Your task to perform on an android device: Open calendar and show me the first week of next month Image 0: 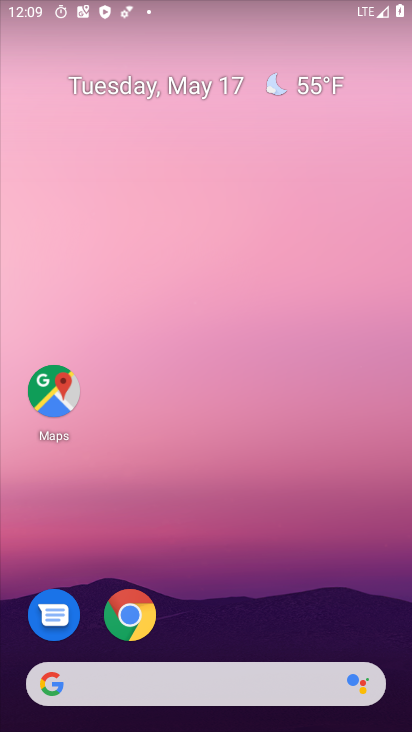
Step 0: press home button
Your task to perform on an android device: Open calendar and show me the first week of next month Image 1: 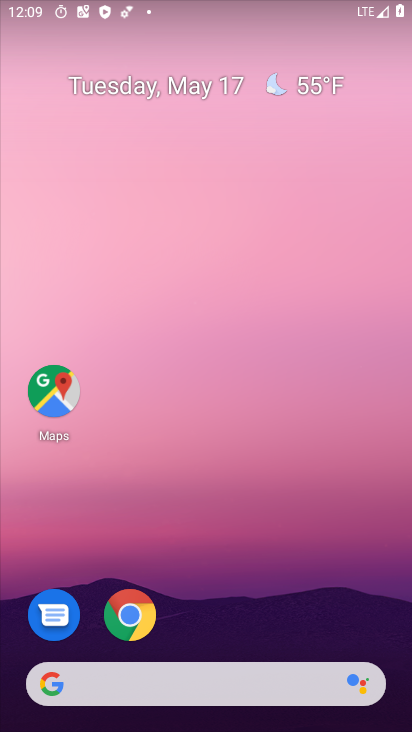
Step 1: drag from (294, 621) to (278, 241)
Your task to perform on an android device: Open calendar and show me the first week of next month Image 2: 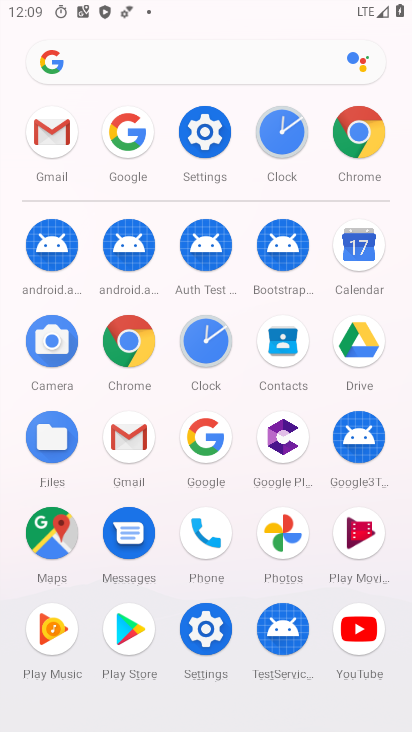
Step 2: click (364, 263)
Your task to perform on an android device: Open calendar and show me the first week of next month Image 3: 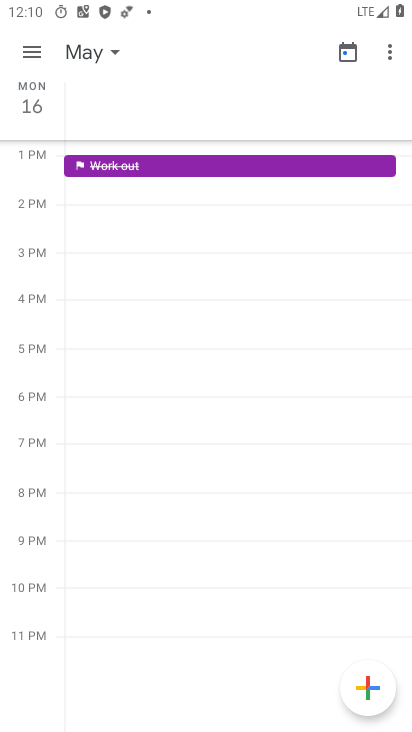
Step 3: click (312, 82)
Your task to perform on an android device: Open calendar and show me the first week of next month Image 4: 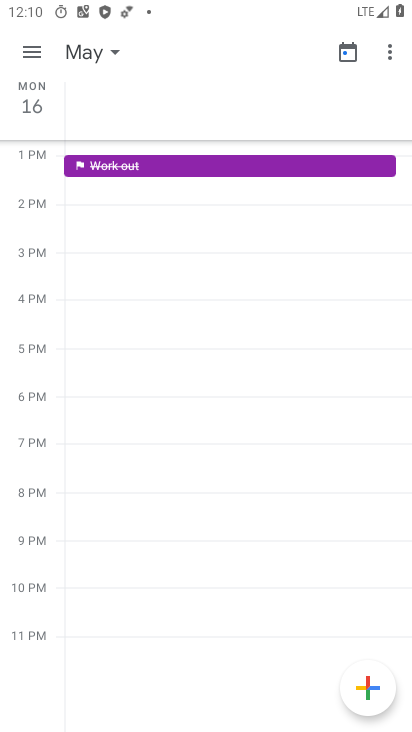
Step 4: click (107, 51)
Your task to perform on an android device: Open calendar and show me the first week of next month Image 5: 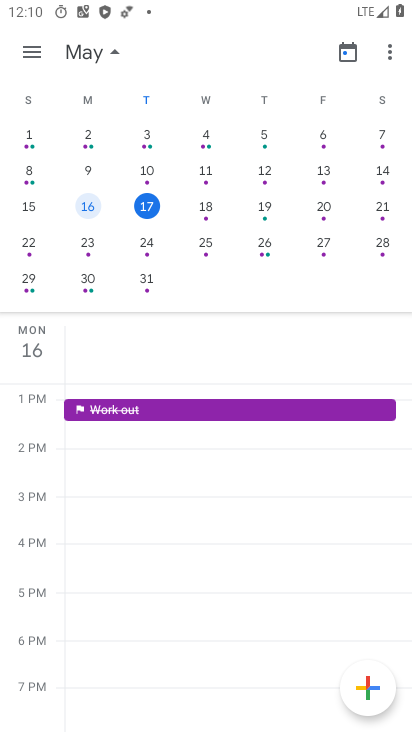
Step 5: task complete